Your task to perform on an android device: Open calendar and show me the second week of next month Image 0: 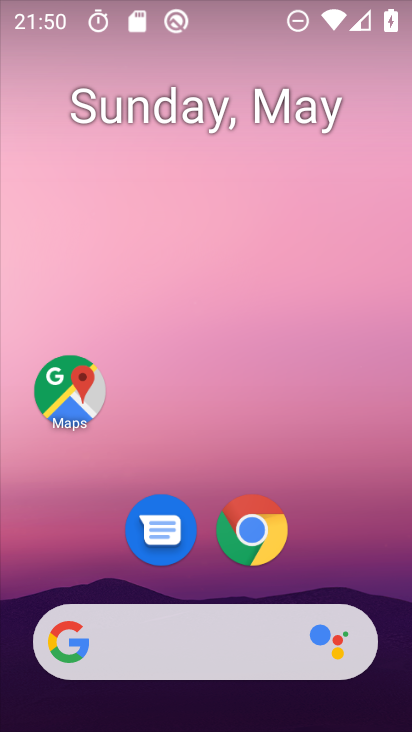
Step 0: drag from (291, 666) to (203, 34)
Your task to perform on an android device: Open calendar and show me the second week of next month Image 1: 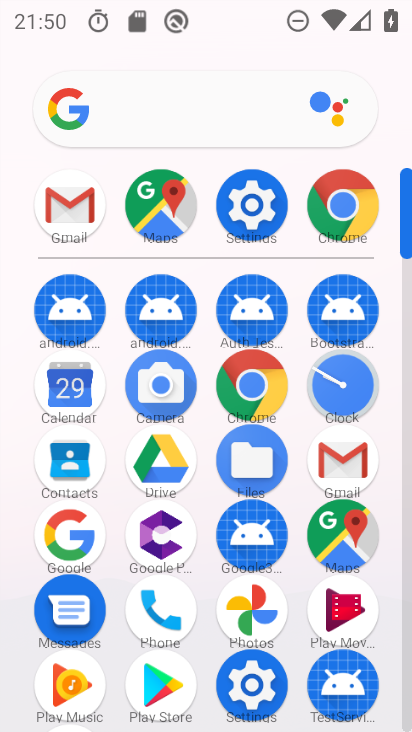
Step 1: click (330, 206)
Your task to perform on an android device: Open calendar and show me the second week of next month Image 2: 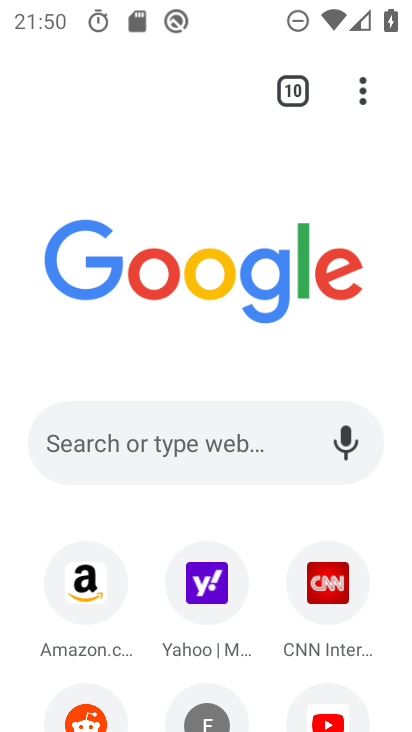
Step 2: press home button
Your task to perform on an android device: Open calendar and show me the second week of next month Image 3: 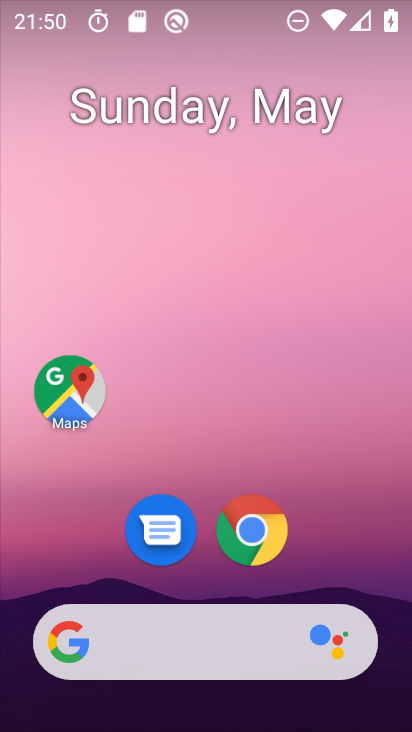
Step 3: drag from (260, 676) to (203, 172)
Your task to perform on an android device: Open calendar and show me the second week of next month Image 4: 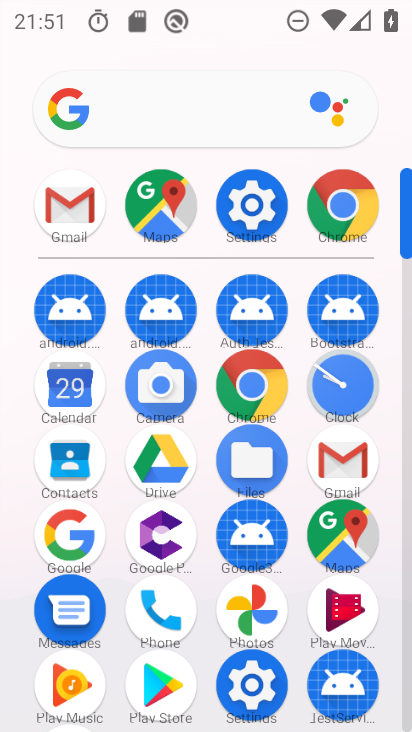
Step 4: click (61, 390)
Your task to perform on an android device: Open calendar and show me the second week of next month Image 5: 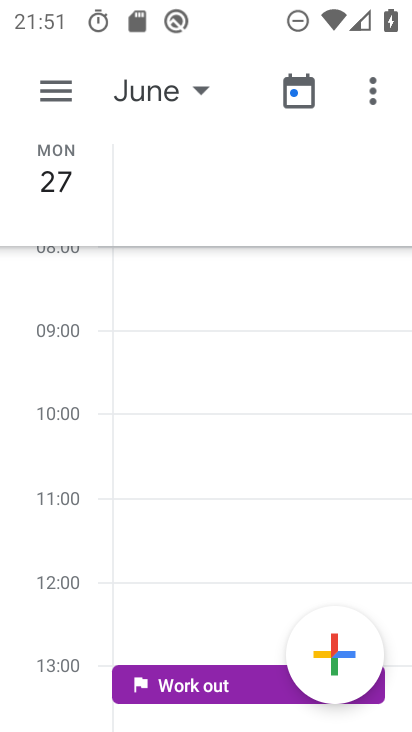
Step 5: click (53, 82)
Your task to perform on an android device: Open calendar and show me the second week of next month Image 6: 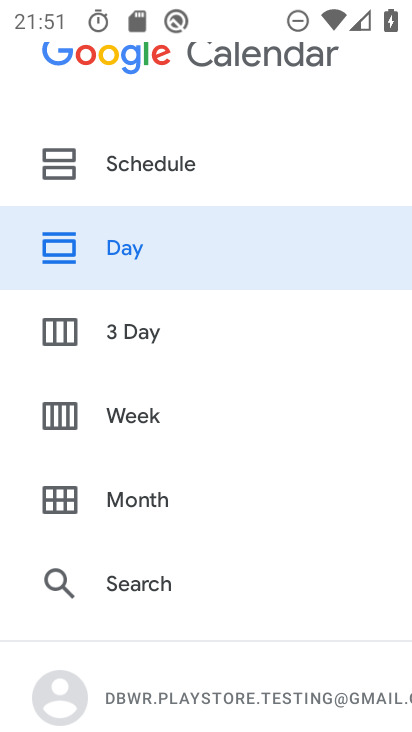
Step 6: click (154, 504)
Your task to perform on an android device: Open calendar and show me the second week of next month Image 7: 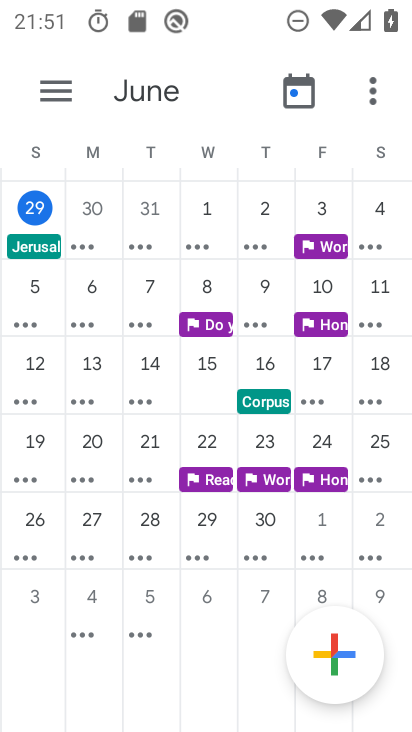
Step 7: drag from (387, 370) to (294, 391)
Your task to perform on an android device: Open calendar and show me the second week of next month Image 8: 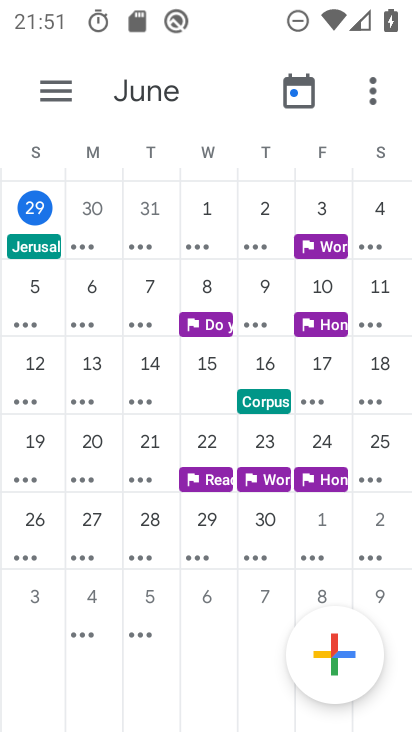
Step 8: click (93, 306)
Your task to perform on an android device: Open calendar and show me the second week of next month Image 9: 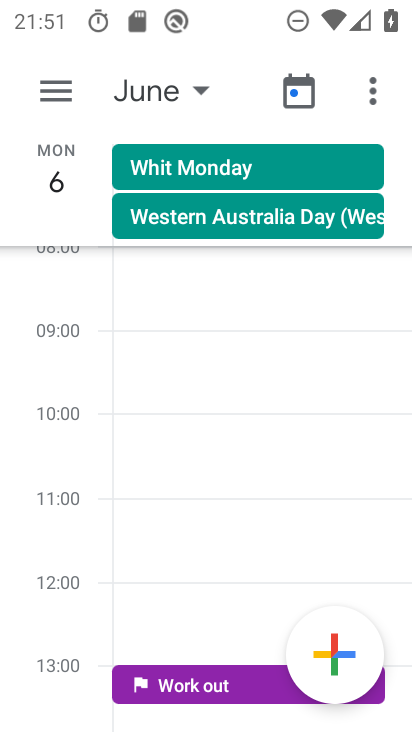
Step 9: task complete